Your task to perform on an android device: turn on javascript in the chrome app Image 0: 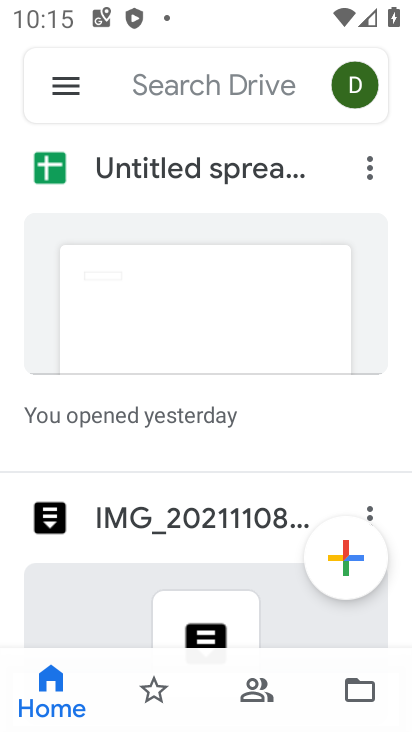
Step 0: press home button
Your task to perform on an android device: turn on javascript in the chrome app Image 1: 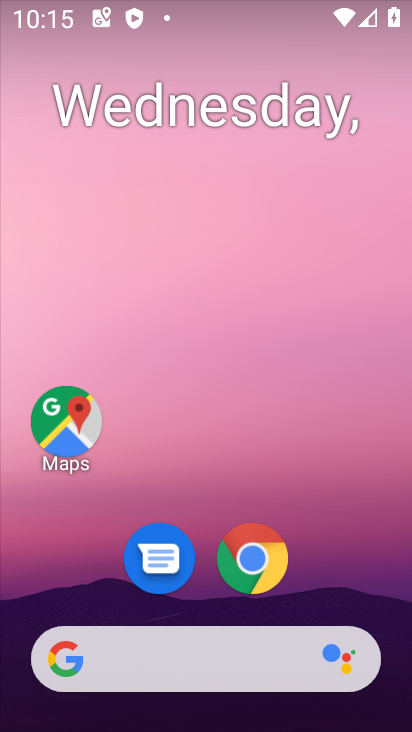
Step 1: click (268, 565)
Your task to perform on an android device: turn on javascript in the chrome app Image 2: 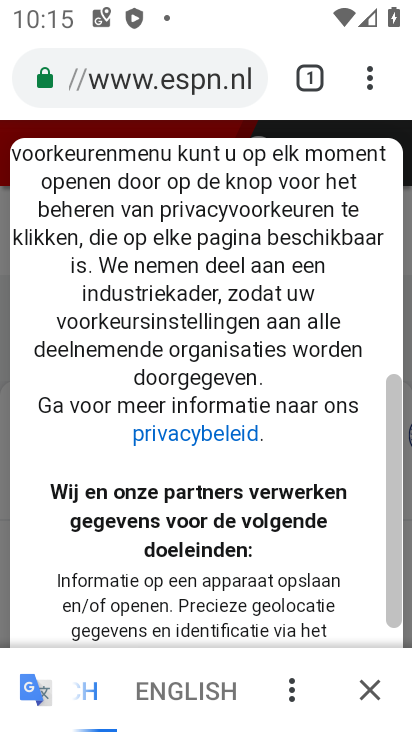
Step 2: click (373, 81)
Your task to perform on an android device: turn on javascript in the chrome app Image 3: 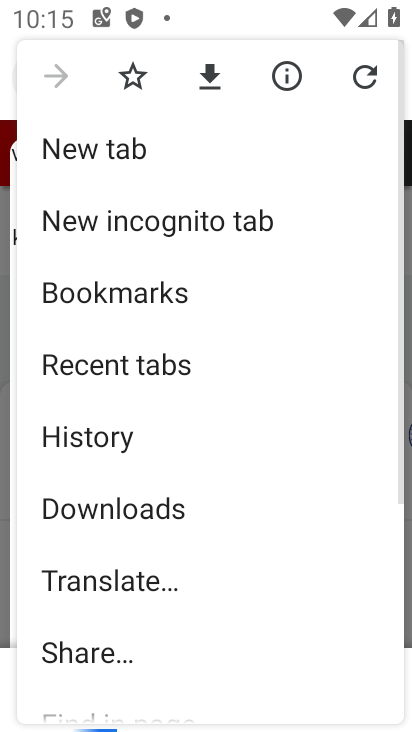
Step 3: drag from (103, 637) to (225, 266)
Your task to perform on an android device: turn on javascript in the chrome app Image 4: 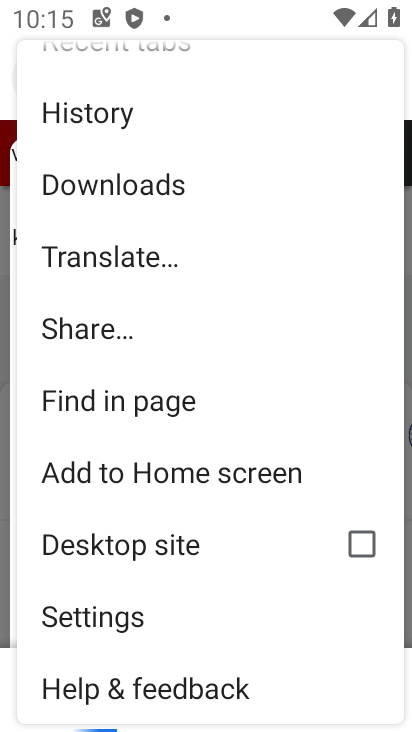
Step 4: click (81, 621)
Your task to perform on an android device: turn on javascript in the chrome app Image 5: 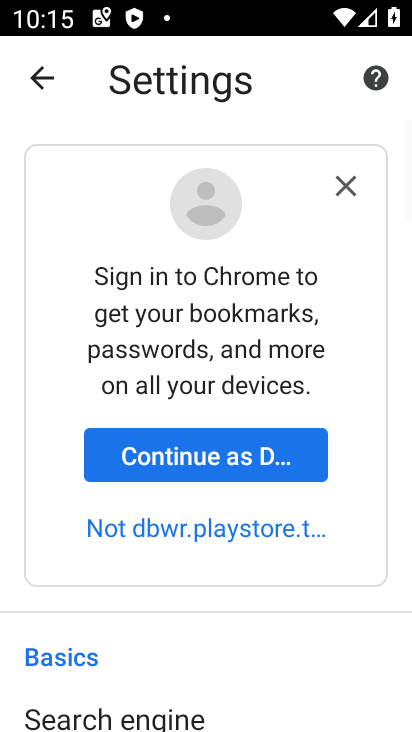
Step 5: click (349, 184)
Your task to perform on an android device: turn on javascript in the chrome app Image 6: 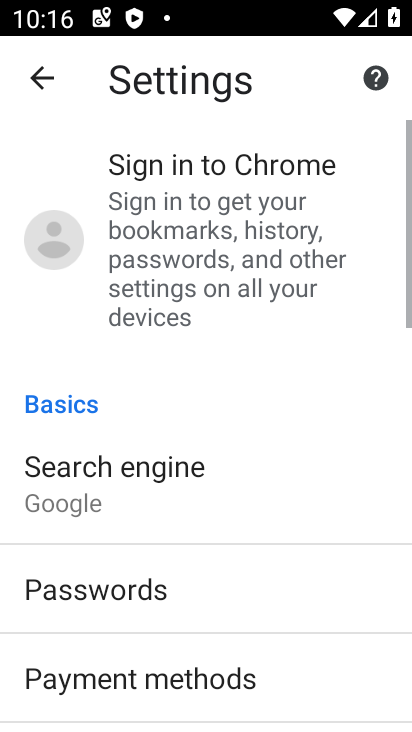
Step 6: drag from (73, 657) to (257, 225)
Your task to perform on an android device: turn on javascript in the chrome app Image 7: 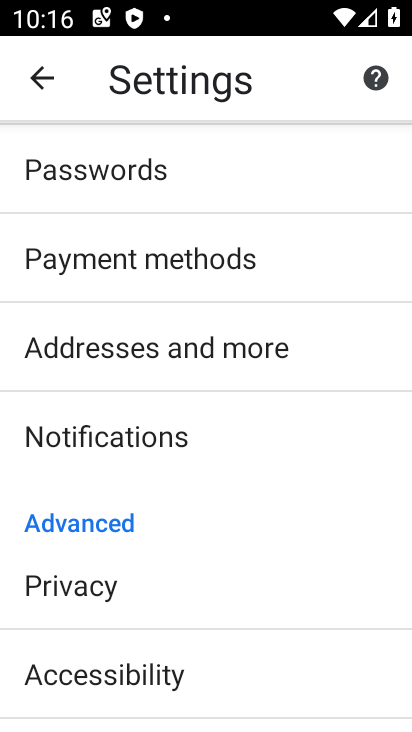
Step 7: drag from (77, 695) to (229, 377)
Your task to perform on an android device: turn on javascript in the chrome app Image 8: 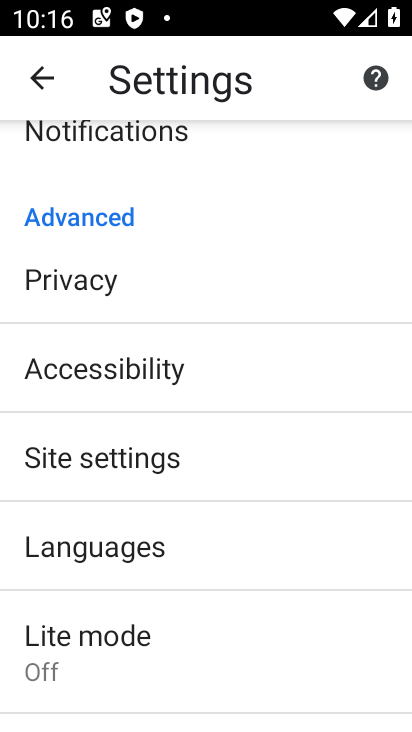
Step 8: click (109, 451)
Your task to perform on an android device: turn on javascript in the chrome app Image 9: 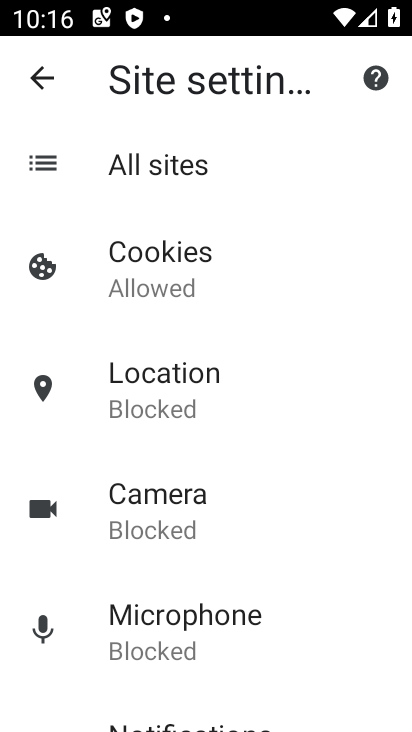
Step 9: drag from (3, 655) to (281, 253)
Your task to perform on an android device: turn on javascript in the chrome app Image 10: 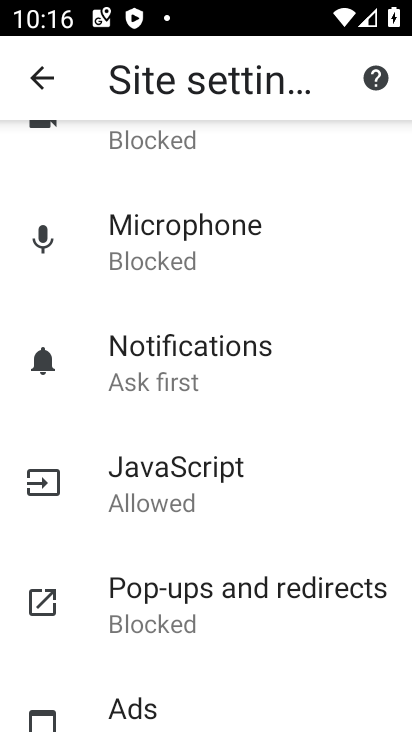
Step 10: click (137, 483)
Your task to perform on an android device: turn on javascript in the chrome app Image 11: 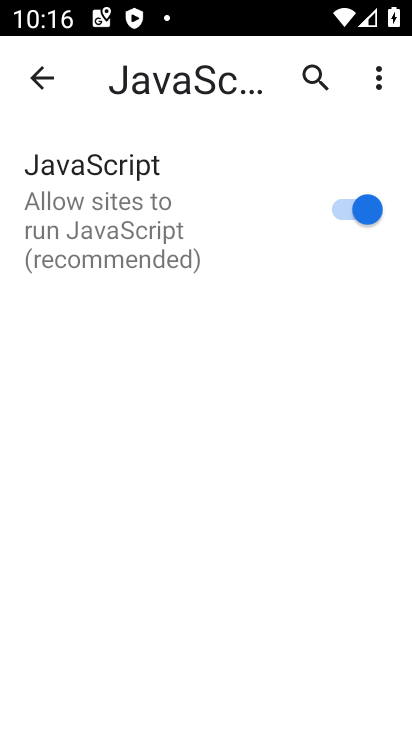
Step 11: task complete